Your task to perform on an android device: see tabs open on other devices in the chrome app Image 0: 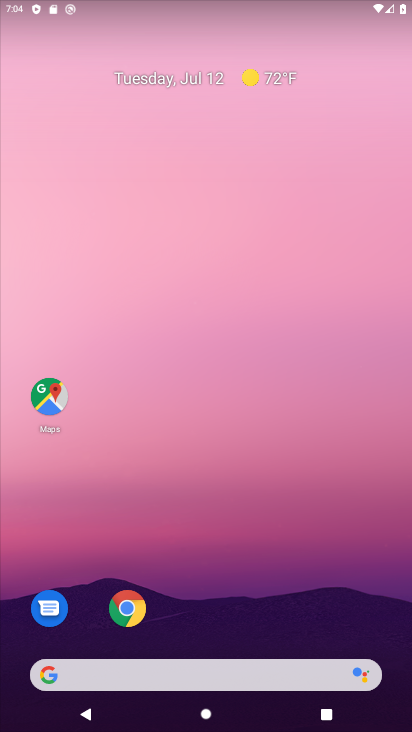
Step 0: drag from (225, 521) to (174, 108)
Your task to perform on an android device: see tabs open on other devices in the chrome app Image 1: 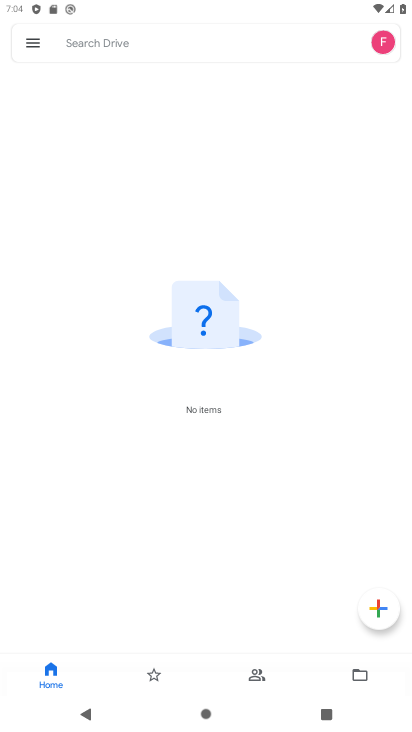
Step 1: press home button
Your task to perform on an android device: see tabs open on other devices in the chrome app Image 2: 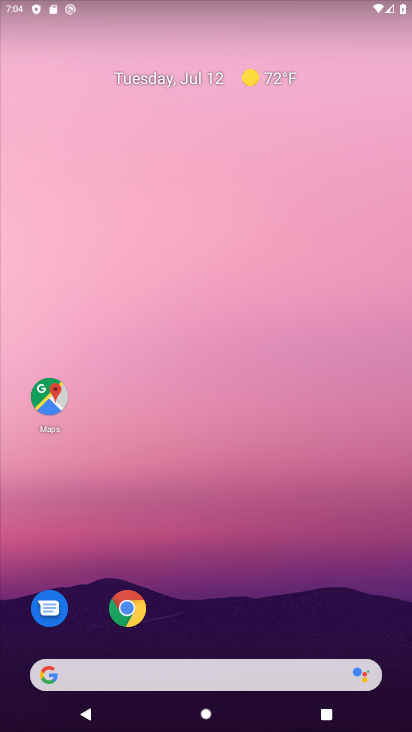
Step 2: click (121, 614)
Your task to perform on an android device: see tabs open on other devices in the chrome app Image 3: 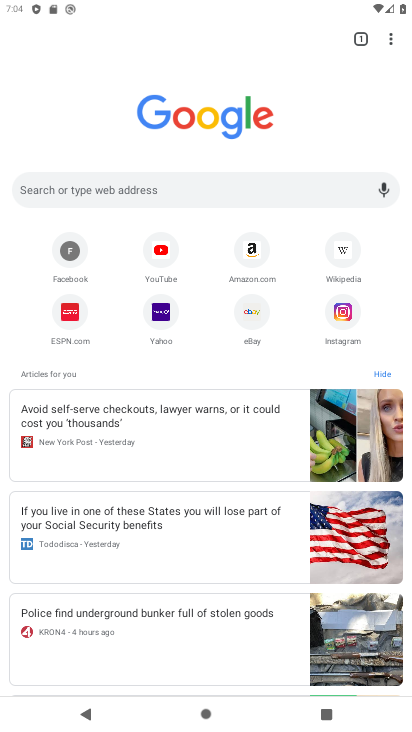
Step 3: click (389, 38)
Your task to perform on an android device: see tabs open on other devices in the chrome app Image 4: 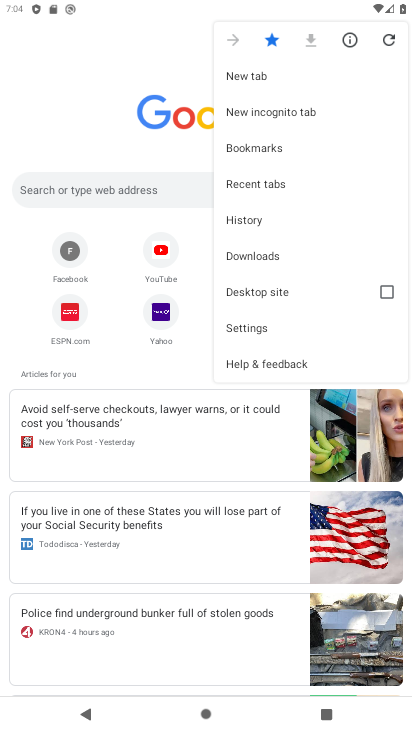
Step 4: click (245, 180)
Your task to perform on an android device: see tabs open on other devices in the chrome app Image 5: 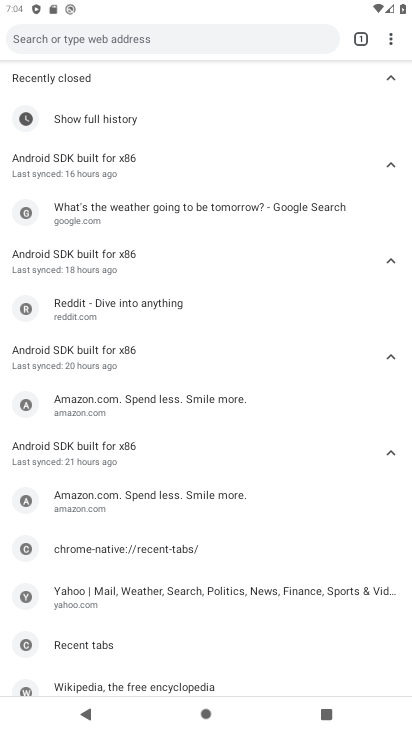
Step 5: task complete